Your task to perform on an android device: choose inbox layout in the gmail app Image 0: 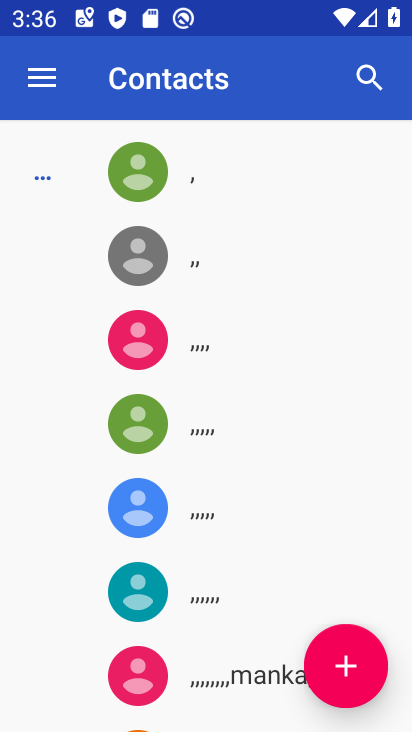
Step 0: press home button
Your task to perform on an android device: choose inbox layout in the gmail app Image 1: 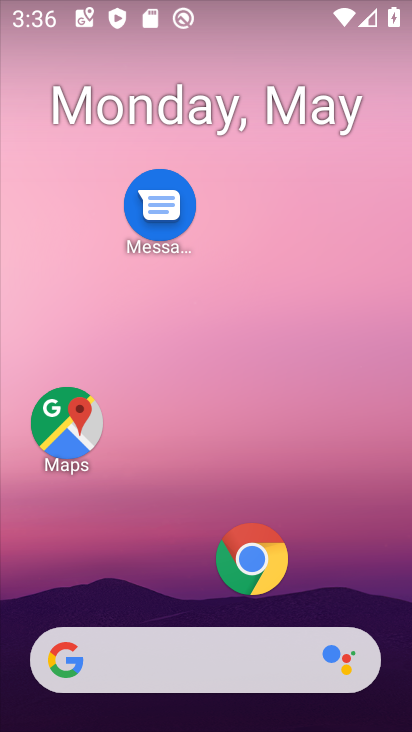
Step 1: drag from (105, 560) to (124, 130)
Your task to perform on an android device: choose inbox layout in the gmail app Image 2: 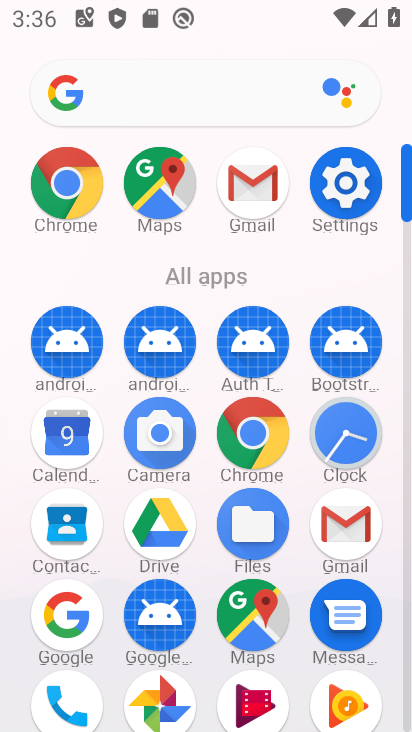
Step 2: click (255, 187)
Your task to perform on an android device: choose inbox layout in the gmail app Image 3: 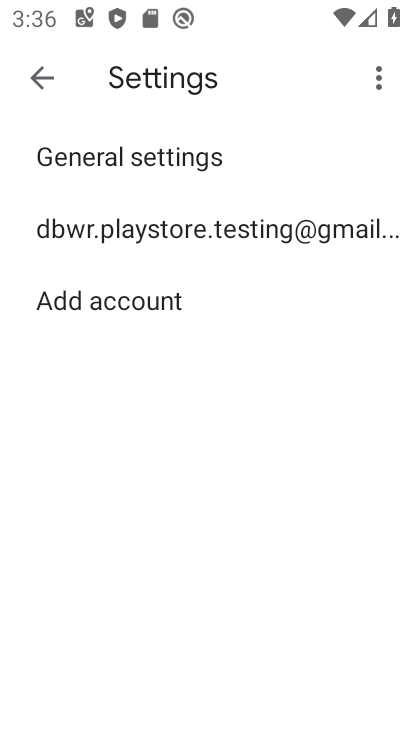
Step 3: click (193, 234)
Your task to perform on an android device: choose inbox layout in the gmail app Image 4: 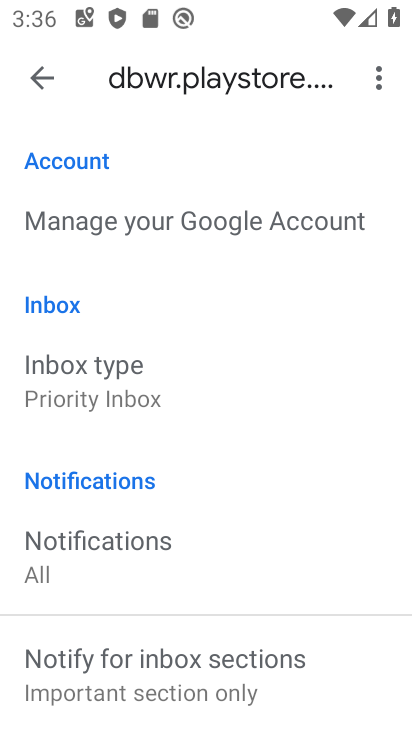
Step 4: click (124, 390)
Your task to perform on an android device: choose inbox layout in the gmail app Image 5: 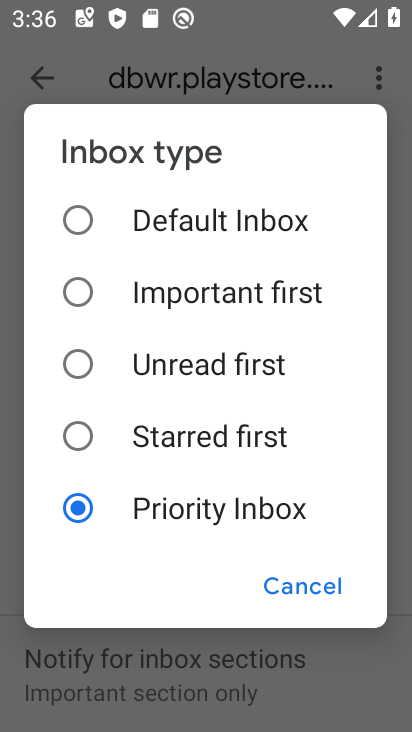
Step 5: click (88, 214)
Your task to perform on an android device: choose inbox layout in the gmail app Image 6: 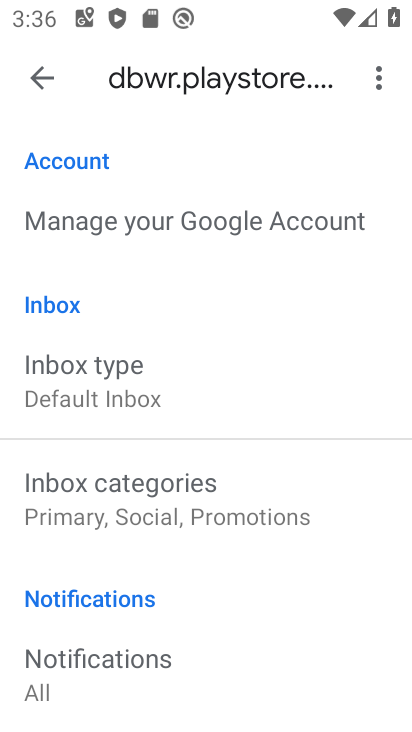
Step 6: task complete